Your task to perform on an android device: create a new album in the google photos Image 0: 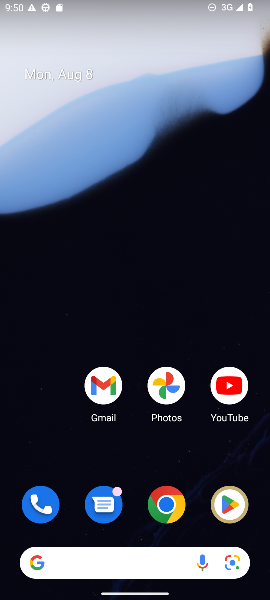
Step 0: click (166, 385)
Your task to perform on an android device: create a new album in the google photos Image 1: 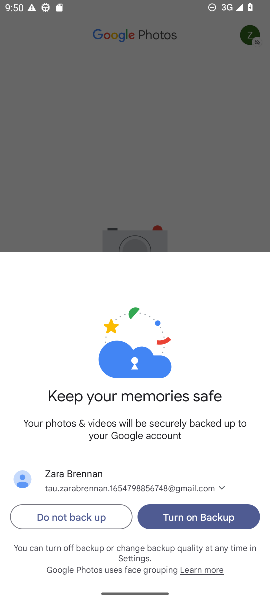
Step 1: click (108, 523)
Your task to perform on an android device: create a new album in the google photos Image 2: 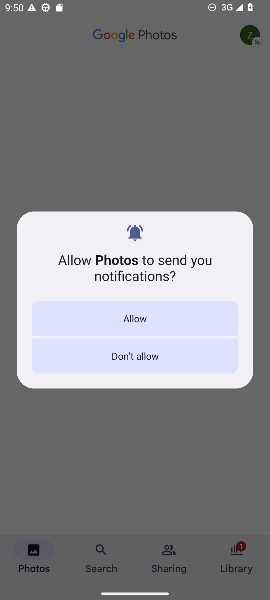
Step 2: click (148, 324)
Your task to perform on an android device: create a new album in the google photos Image 3: 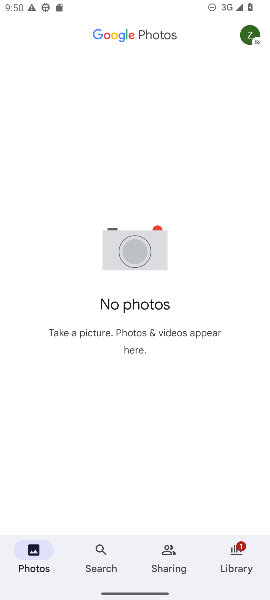
Step 3: click (236, 558)
Your task to perform on an android device: create a new album in the google photos Image 4: 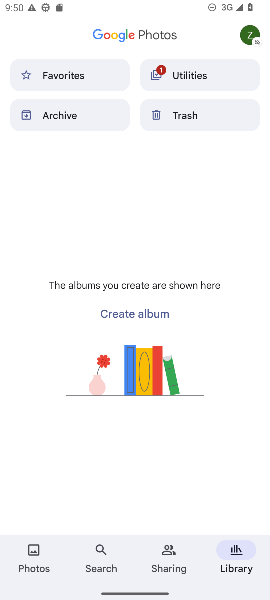
Step 4: click (151, 306)
Your task to perform on an android device: create a new album in the google photos Image 5: 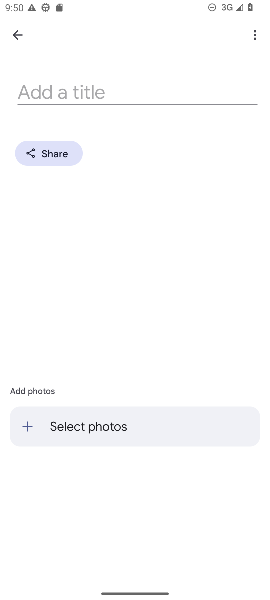
Step 5: click (33, 417)
Your task to perform on an android device: create a new album in the google photos Image 6: 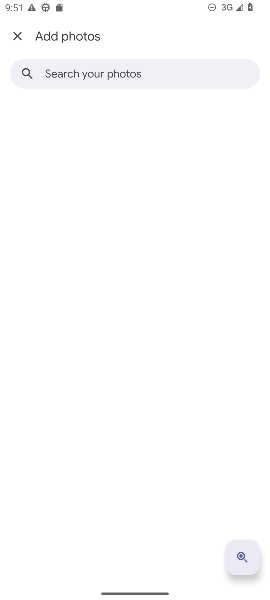
Step 6: click (31, 422)
Your task to perform on an android device: create a new album in the google photos Image 7: 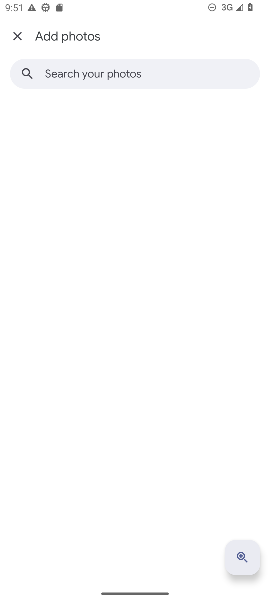
Step 7: task complete